Your task to perform on an android device: Go to battery settings Image 0: 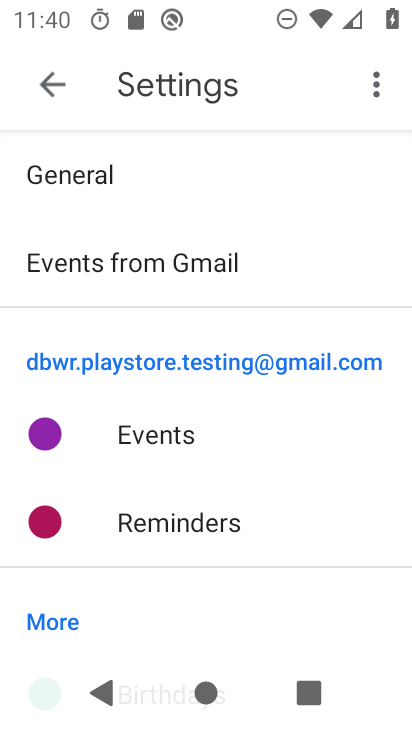
Step 0: press home button
Your task to perform on an android device: Go to battery settings Image 1: 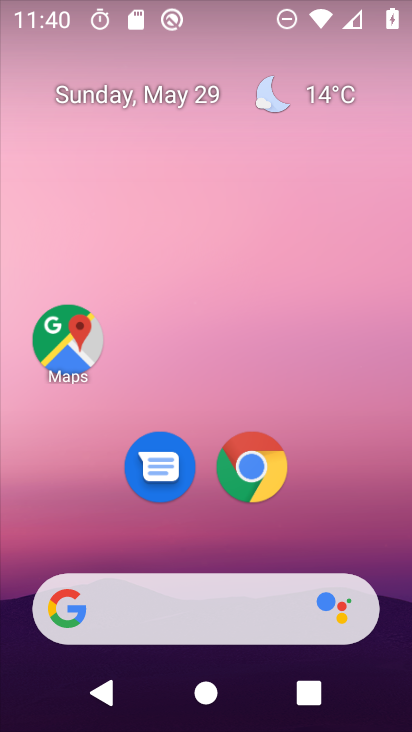
Step 1: drag from (170, 537) to (146, 141)
Your task to perform on an android device: Go to battery settings Image 2: 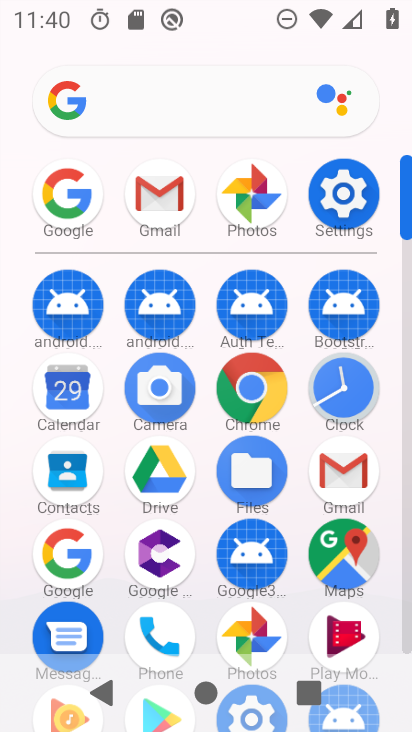
Step 2: click (325, 216)
Your task to perform on an android device: Go to battery settings Image 3: 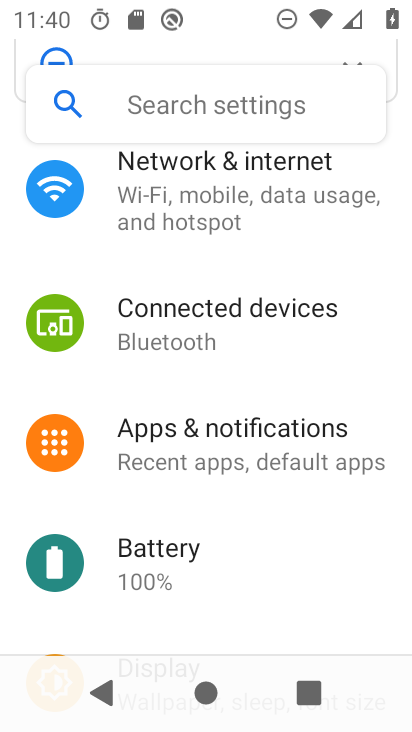
Step 3: click (222, 571)
Your task to perform on an android device: Go to battery settings Image 4: 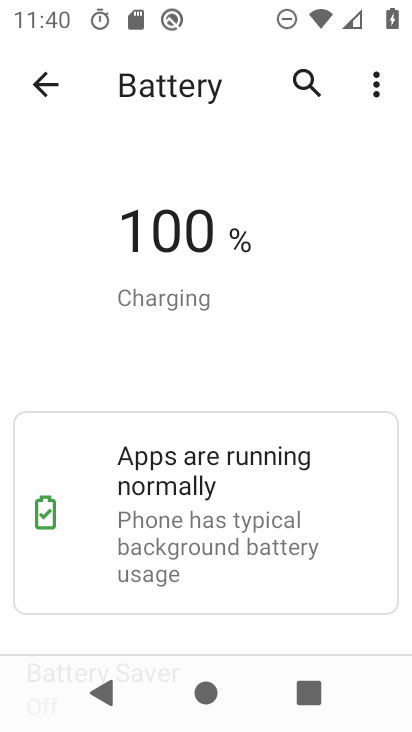
Step 4: task complete